Your task to perform on an android device: turn notification dots on Image 0: 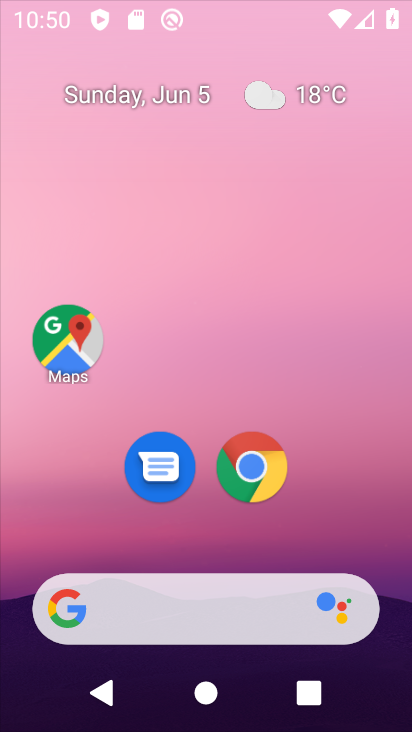
Step 0: click (82, 365)
Your task to perform on an android device: turn notification dots on Image 1: 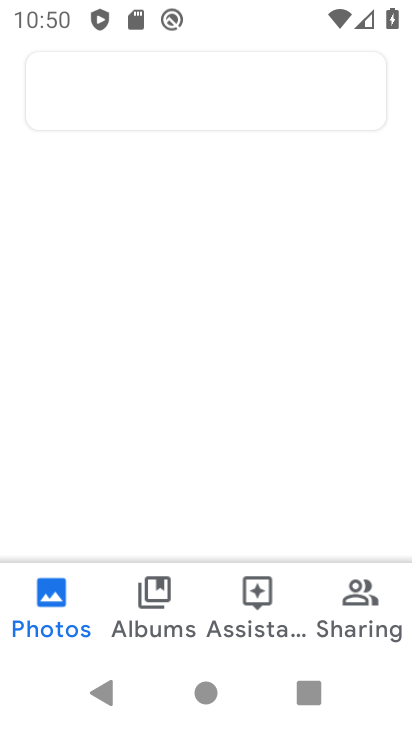
Step 1: press home button
Your task to perform on an android device: turn notification dots on Image 2: 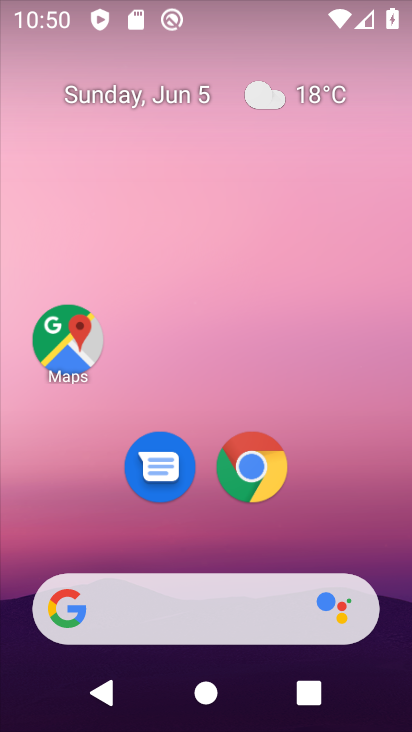
Step 2: drag from (197, 557) to (264, 13)
Your task to perform on an android device: turn notification dots on Image 3: 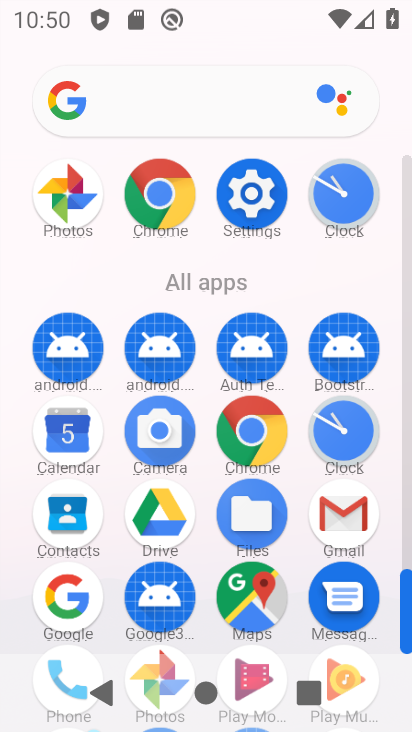
Step 3: click (258, 205)
Your task to perform on an android device: turn notification dots on Image 4: 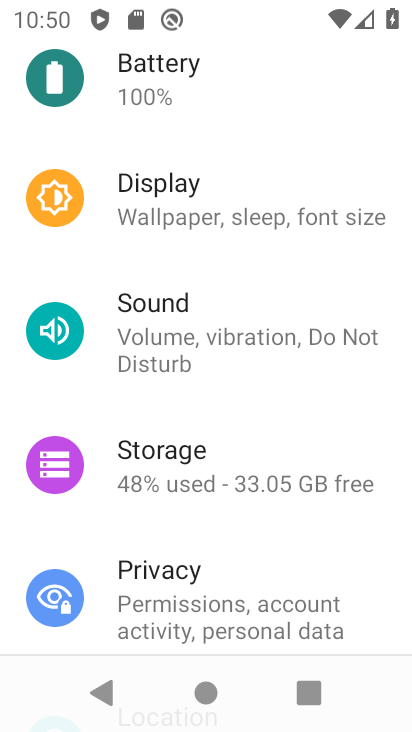
Step 4: drag from (253, 262) to (187, 612)
Your task to perform on an android device: turn notification dots on Image 5: 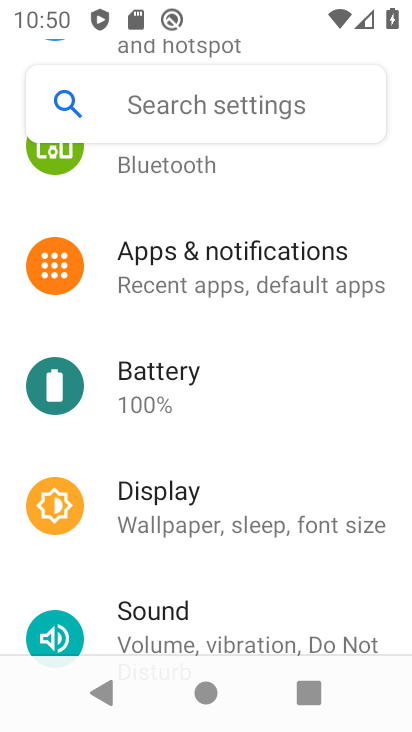
Step 5: click (192, 302)
Your task to perform on an android device: turn notification dots on Image 6: 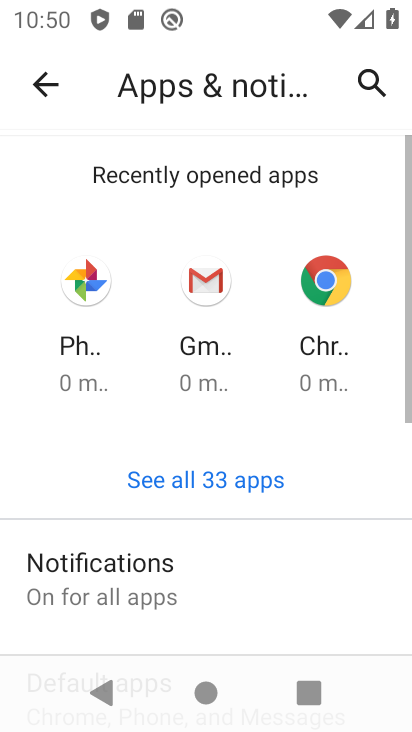
Step 6: click (201, 575)
Your task to perform on an android device: turn notification dots on Image 7: 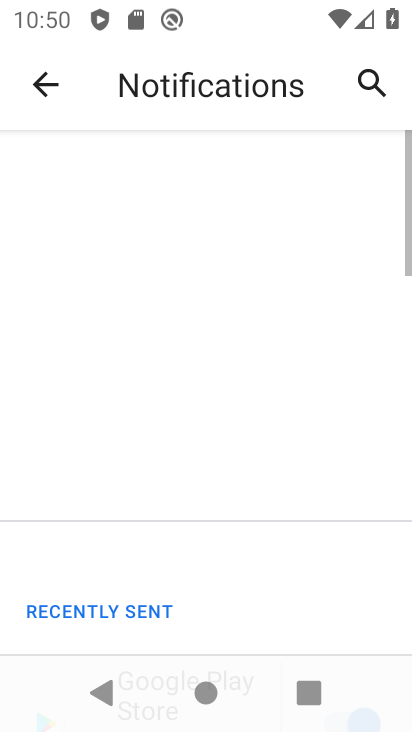
Step 7: drag from (201, 575) to (129, 108)
Your task to perform on an android device: turn notification dots on Image 8: 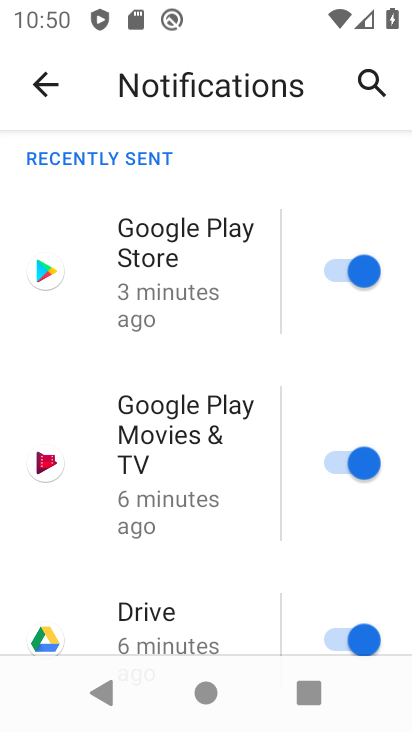
Step 8: drag from (147, 522) to (73, 94)
Your task to perform on an android device: turn notification dots on Image 9: 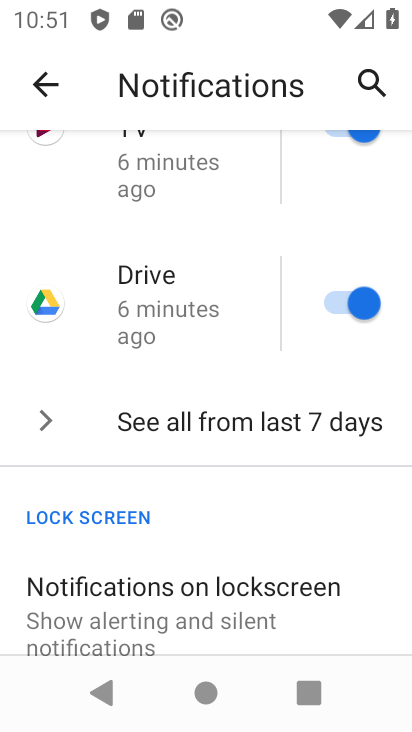
Step 9: drag from (201, 576) to (159, 134)
Your task to perform on an android device: turn notification dots on Image 10: 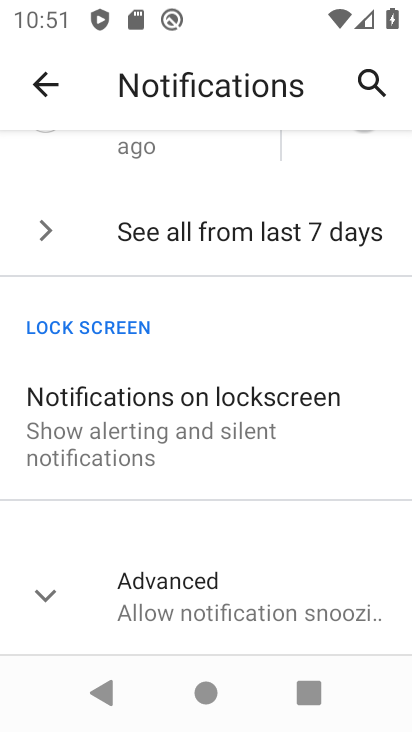
Step 10: click (184, 573)
Your task to perform on an android device: turn notification dots on Image 11: 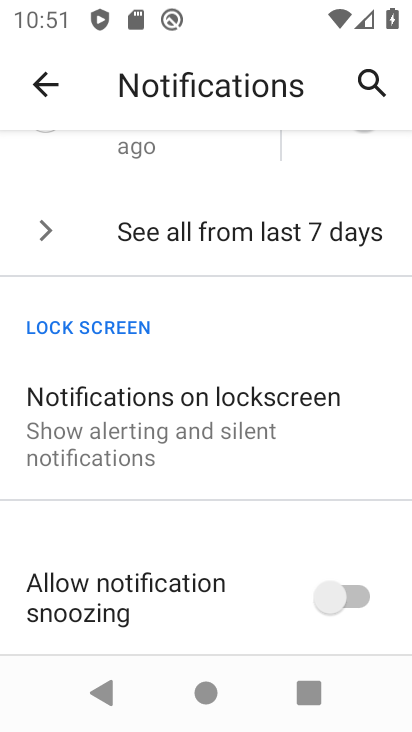
Step 11: task complete